Your task to perform on an android device: show emergency info Image 0: 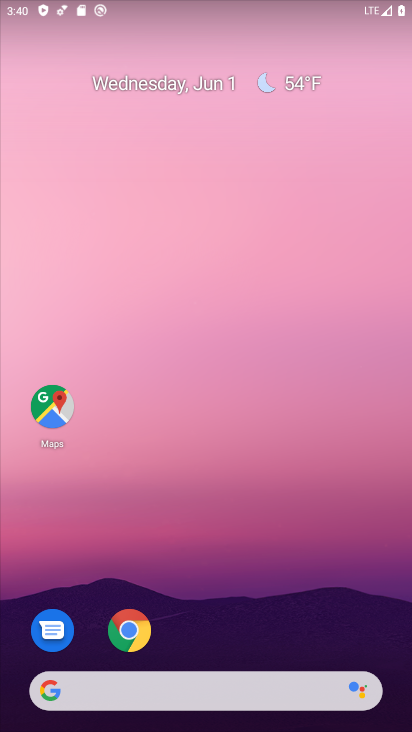
Step 0: drag from (280, 558) to (204, 20)
Your task to perform on an android device: show emergency info Image 1: 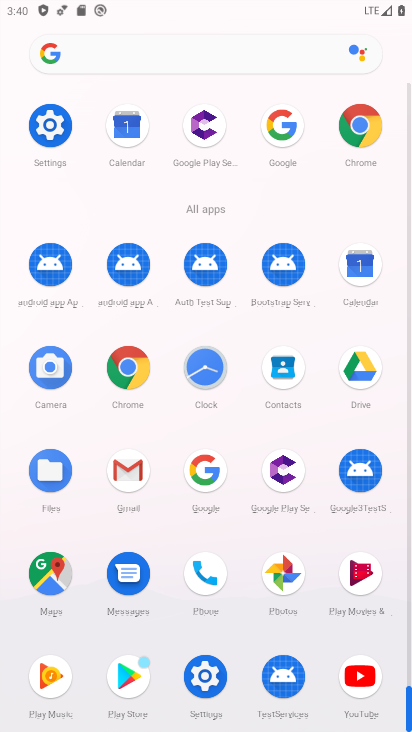
Step 1: drag from (5, 534) to (9, 196)
Your task to perform on an android device: show emergency info Image 2: 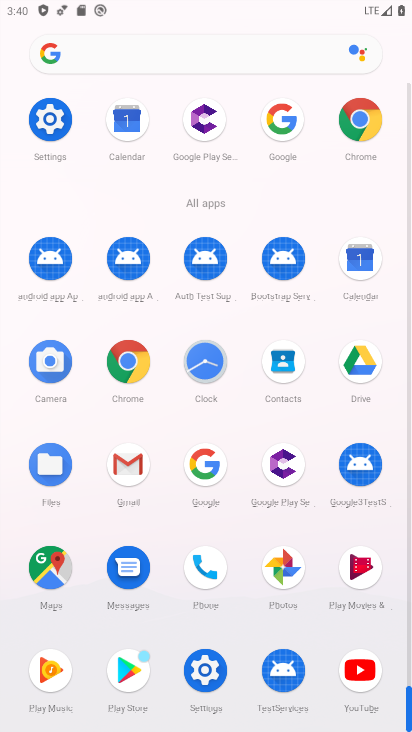
Step 2: click (199, 664)
Your task to perform on an android device: show emergency info Image 3: 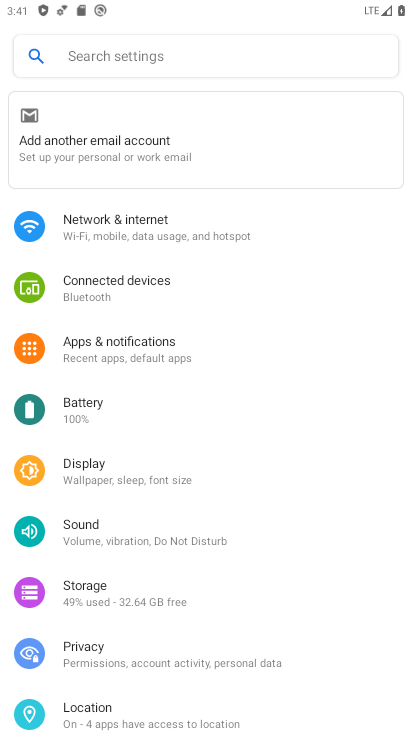
Step 3: drag from (214, 665) to (212, 150)
Your task to perform on an android device: show emergency info Image 4: 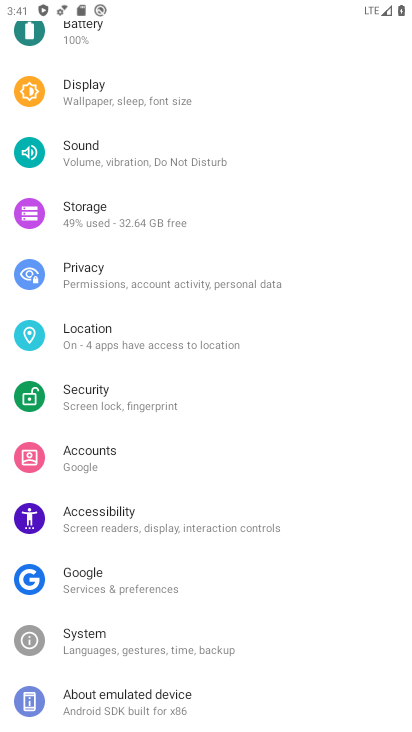
Step 4: drag from (222, 614) to (234, 122)
Your task to perform on an android device: show emergency info Image 5: 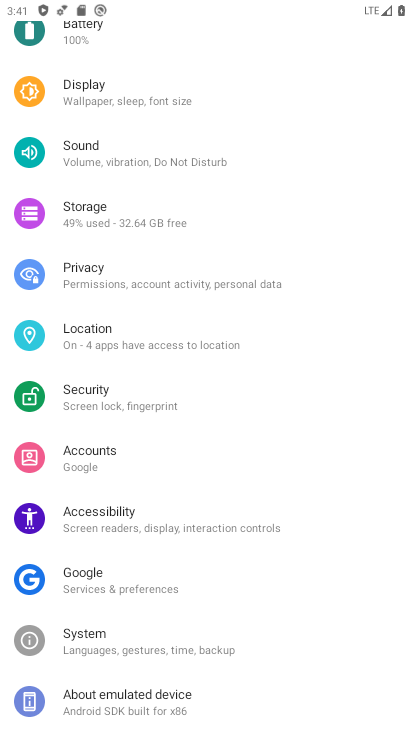
Step 5: click (126, 688)
Your task to perform on an android device: show emergency info Image 6: 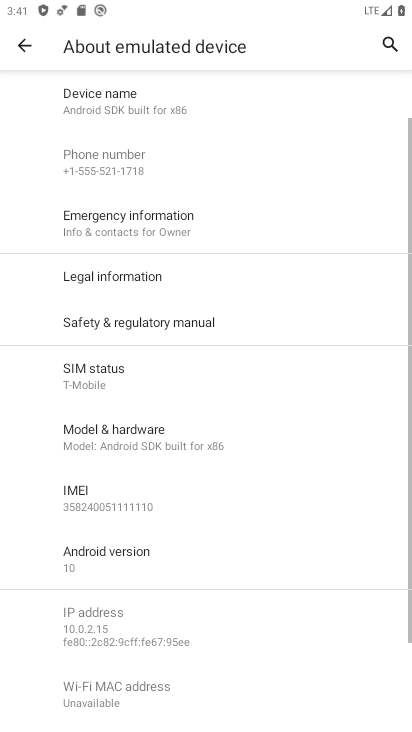
Step 6: task complete